Your task to perform on an android device: turn off location Image 0: 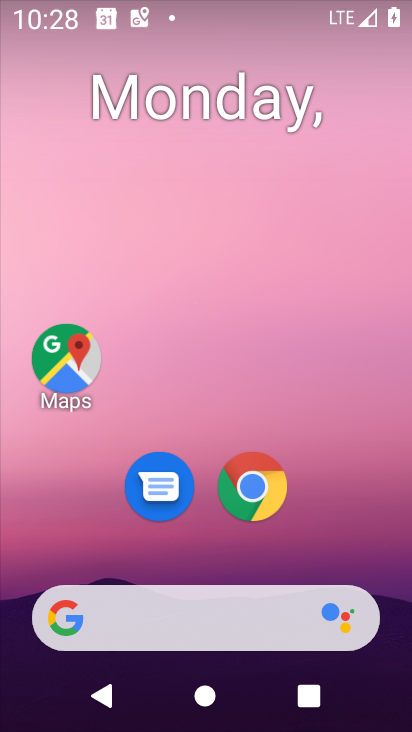
Step 0: drag from (354, 481) to (289, 14)
Your task to perform on an android device: turn off location Image 1: 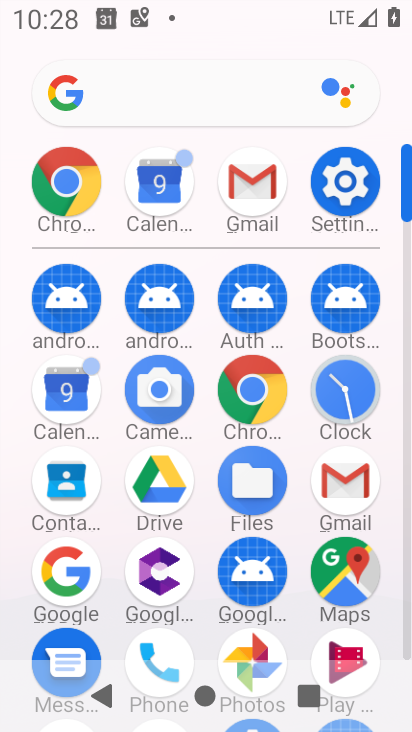
Step 1: drag from (13, 565) to (1, 255)
Your task to perform on an android device: turn off location Image 2: 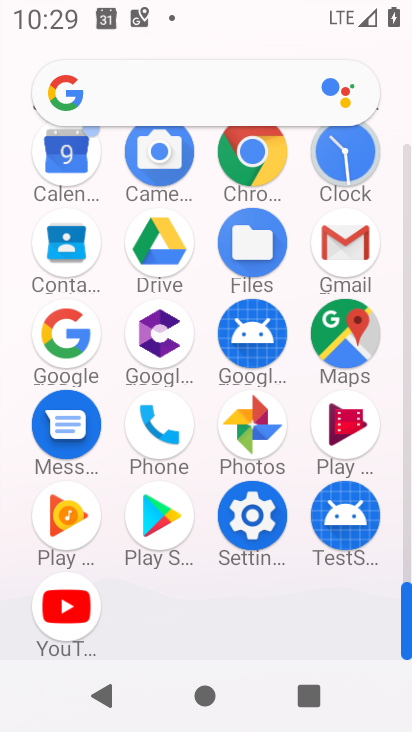
Step 2: click (258, 513)
Your task to perform on an android device: turn off location Image 3: 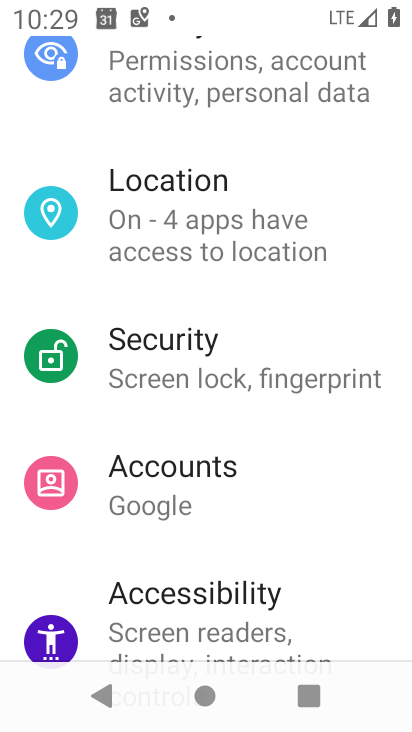
Step 3: click (226, 198)
Your task to perform on an android device: turn off location Image 4: 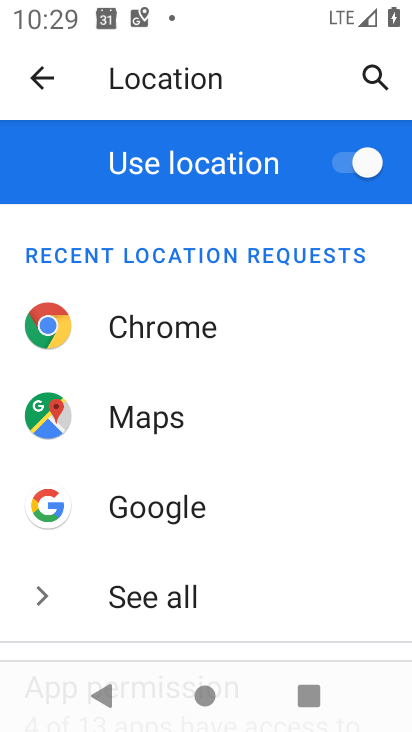
Step 4: click (339, 154)
Your task to perform on an android device: turn off location Image 5: 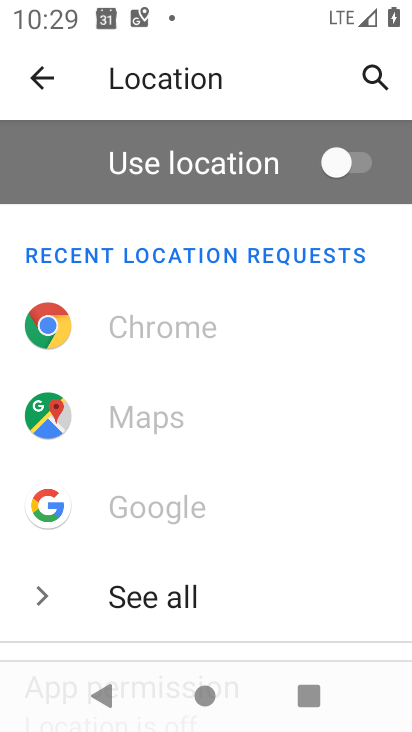
Step 5: task complete